Your task to perform on an android device: Go to Yahoo.com Image 0: 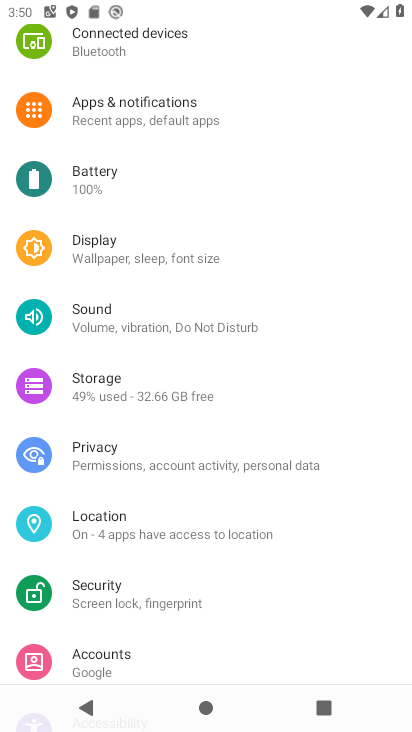
Step 0: press home button
Your task to perform on an android device: Go to Yahoo.com Image 1: 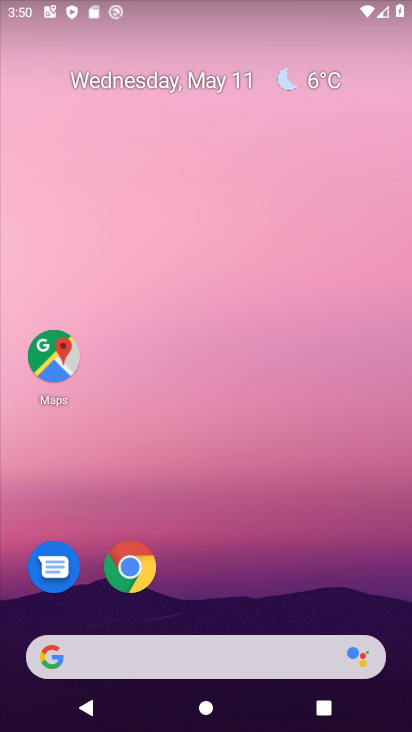
Step 1: drag from (242, 602) to (214, 131)
Your task to perform on an android device: Go to Yahoo.com Image 2: 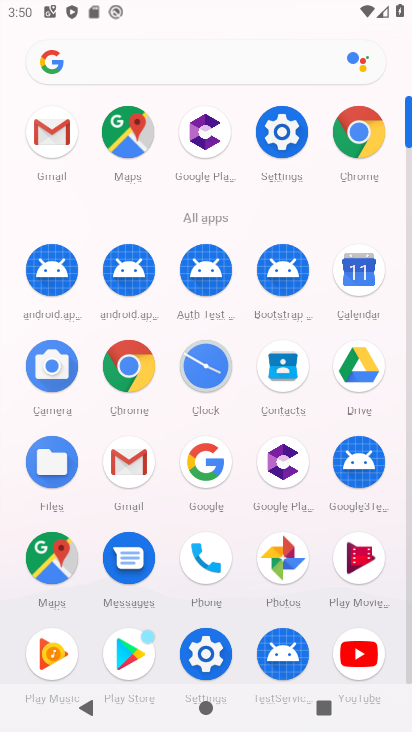
Step 2: click (132, 348)
Your task to perform on an android device: Go to Yahoo.com Image 3: 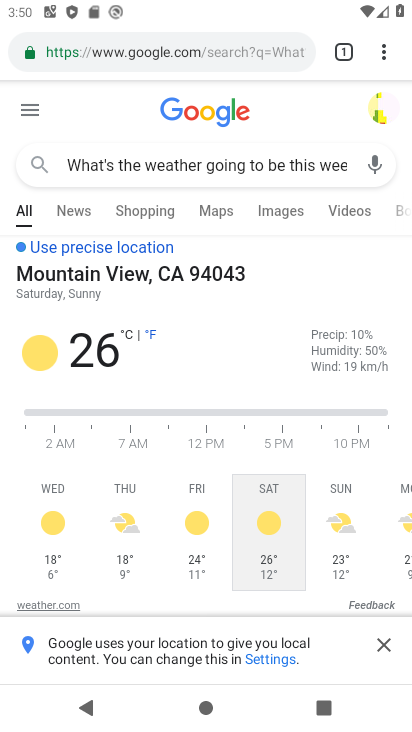
Step 3: click (365, 55)
Your task to perform on an android device: Go to Yahoo.com Image 4: 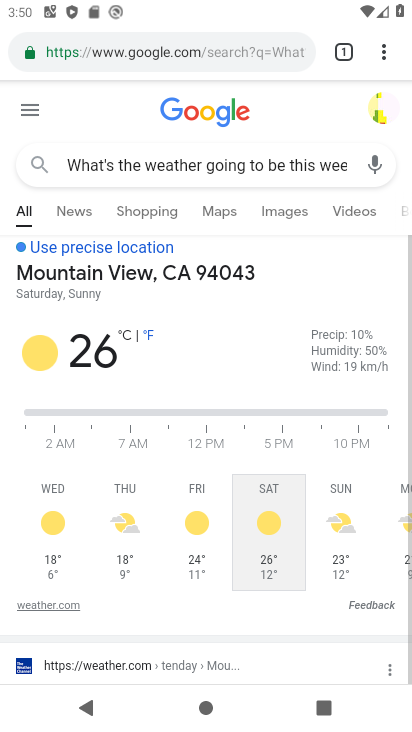
Step 4: click (365, 49)
Your task to perform on an android device: Go to Yahoo.com Image 5: 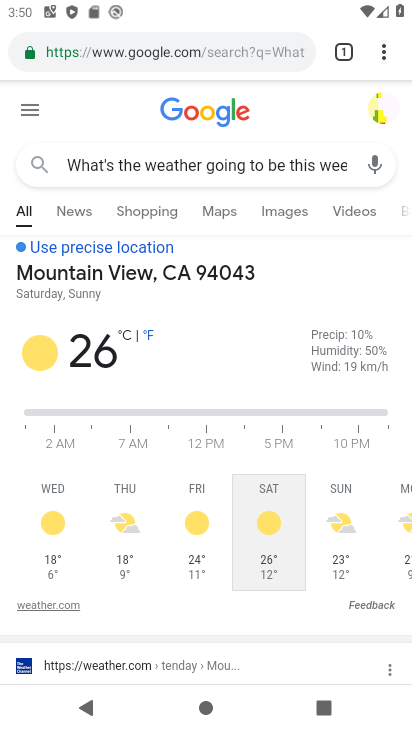
Step 5: click (370, 50)
Your task to perform on an android device: Go to Yahoo.com Image 6: 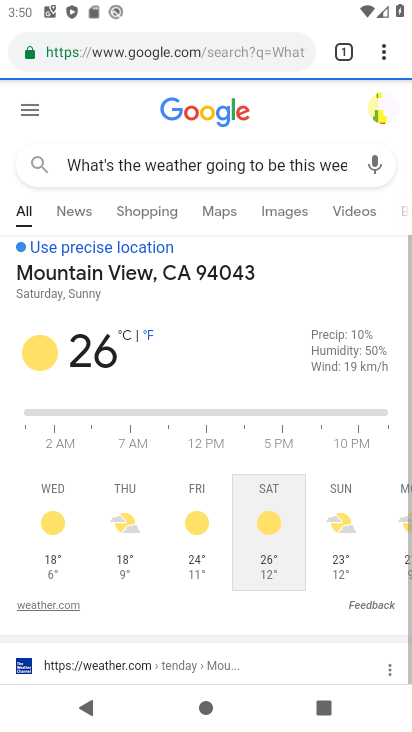
Step 6: click (370, 50)
Your task to perform on an android device: Go to Yahoo.com Image 7: 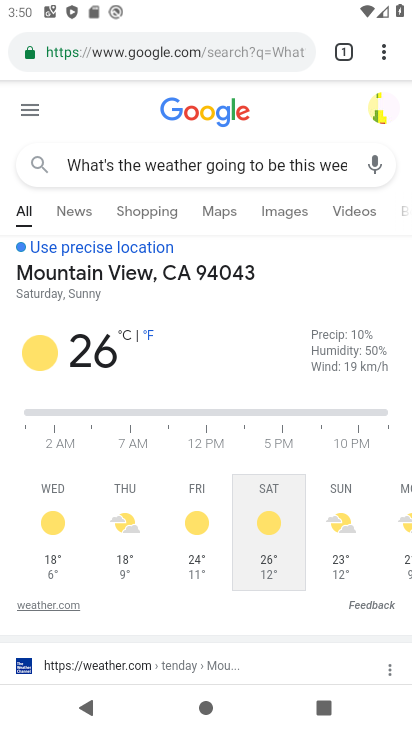
Step 7: click (371, 52)
Your task to perform on an android device: Go to Yahoo.com Image 8: 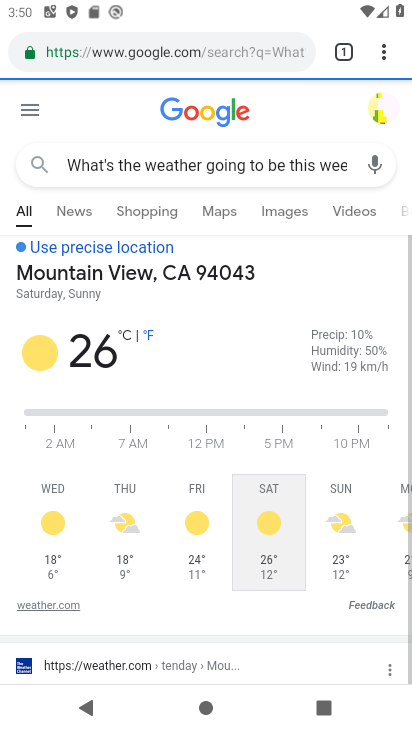
Step 8: click (372, 48)
Your task to perform on an android device: Go to Yahoo.com Image 9: 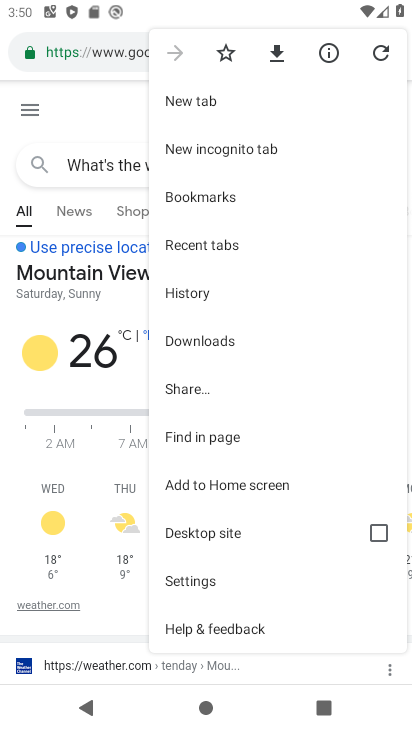
Step 9: click (212, 105)
Your task to perform on an android device: Go to Yahoo.com Image 10: 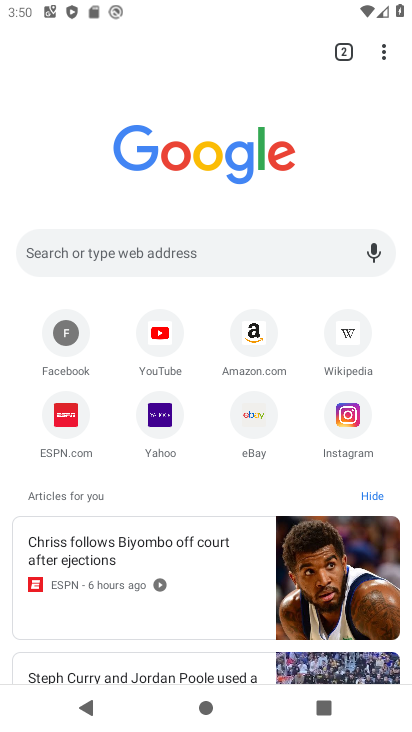
Step 10: click (172, 424)
Your task to perform on an android device: Go to Yahoo.com Image 11: 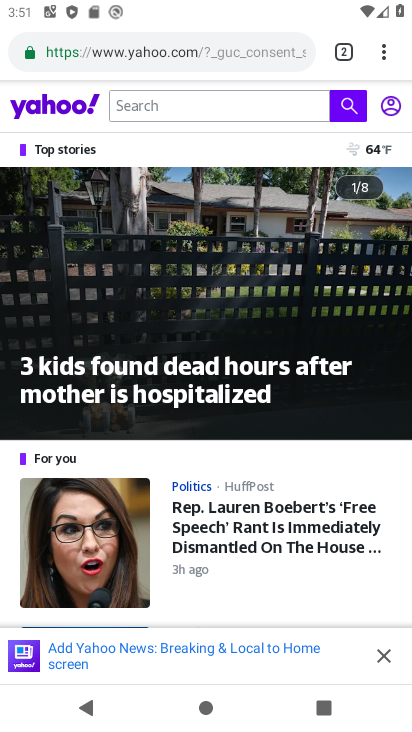
Step 11: task complete